Your task to perform on an android device: change notifications settings Image 0: 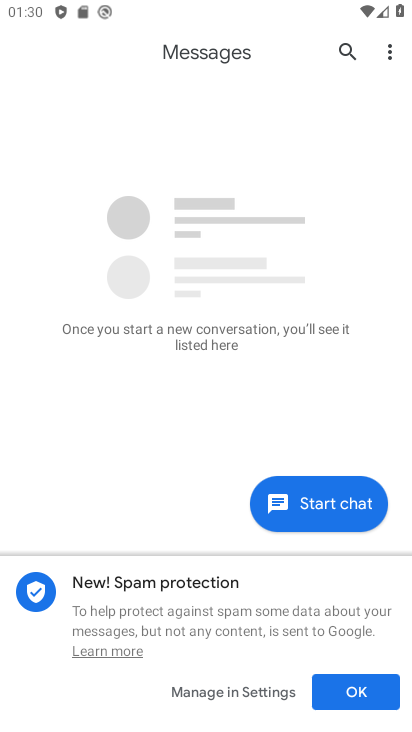
Step 0: press home button
Your task to perform on an android device: change notifications settings Image 1: 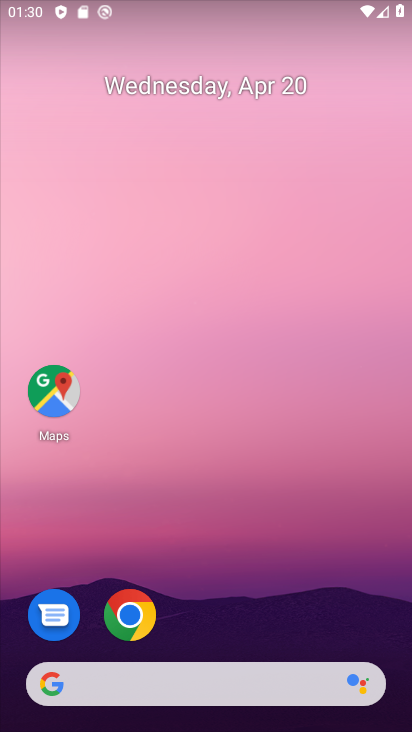
Step 1: drag from (352, 568) to (331, 220)
Your task to perform on an android device: change notifications settings Image 2: 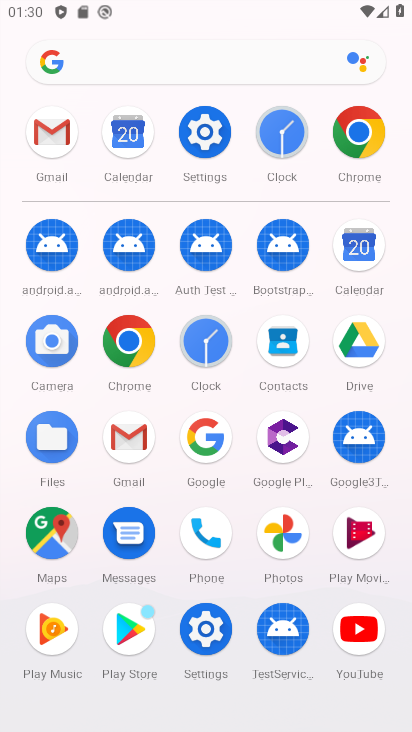
Step 2: click (197, 131)
Your task to perform on an android device: change notifications settings Image 3: 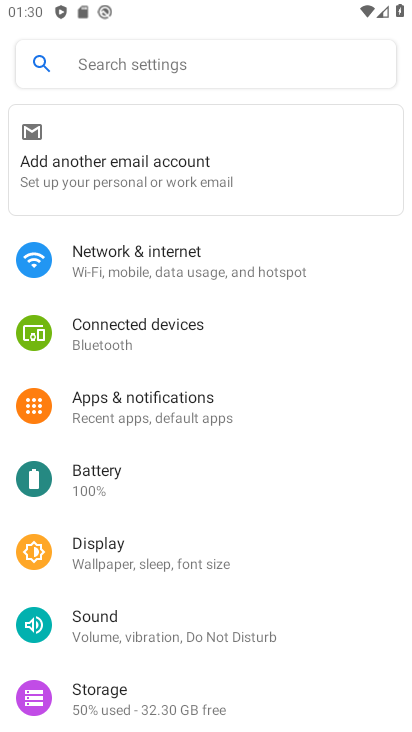
Step 3: click (121, 402)
Your task to perform on an android device: change notifications settings Image 4: 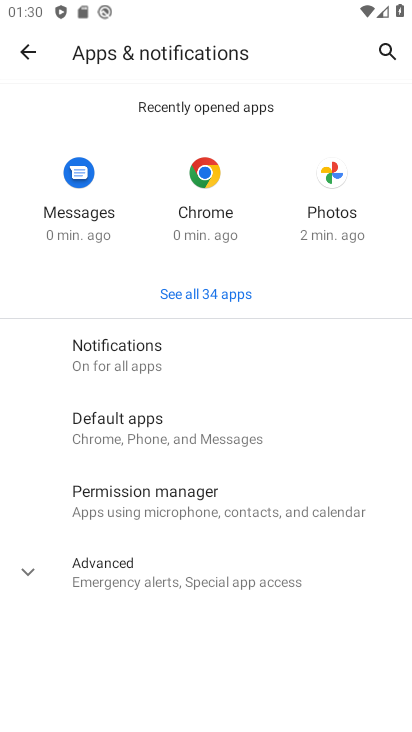
Step 4: click (112, 354)
Your task to perform on an android device: change notifications settings Image 5: 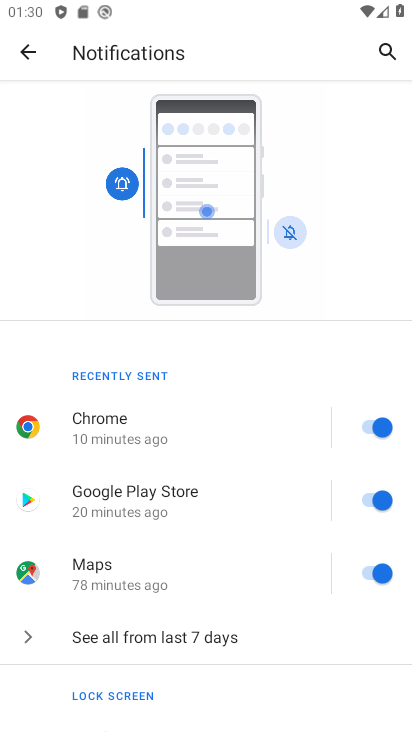
Step 5: click (362, 426)
Your task to perform on an android device: change notifications settings Image 6: 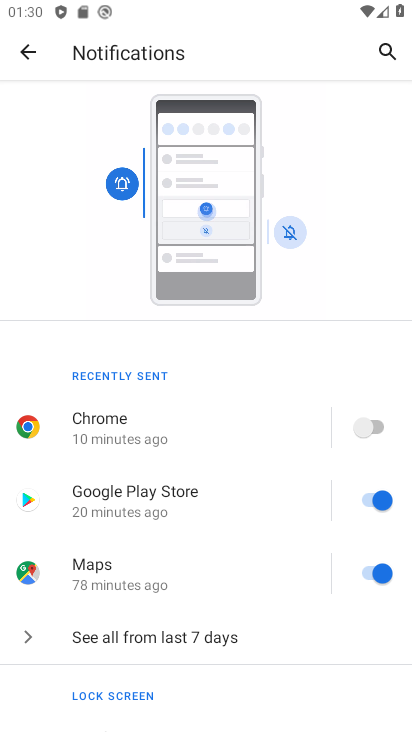
Step 6: click (367, 499)
Your task to perform on an android device: change notifications settings Image 7: 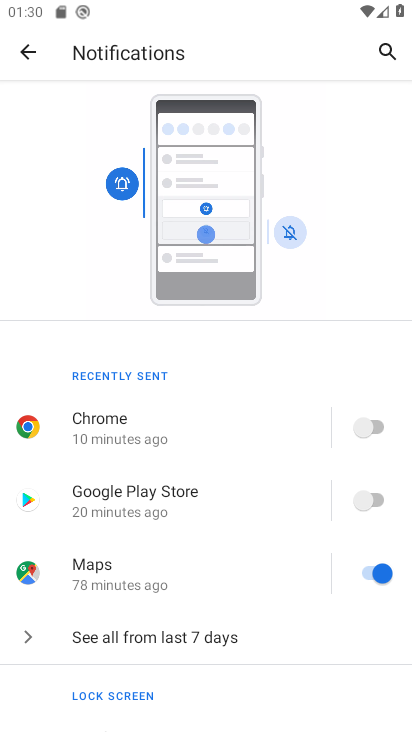
Step 7: click (364, 567)
Your task to perform on an android device: change notifications settings Image 8: 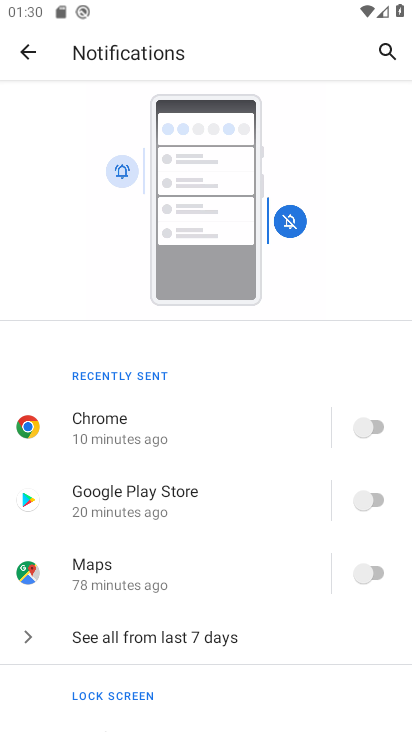
Step 8: task complete